Your task to perform on an android device: choose inbox layout in the gmail app Image 0: 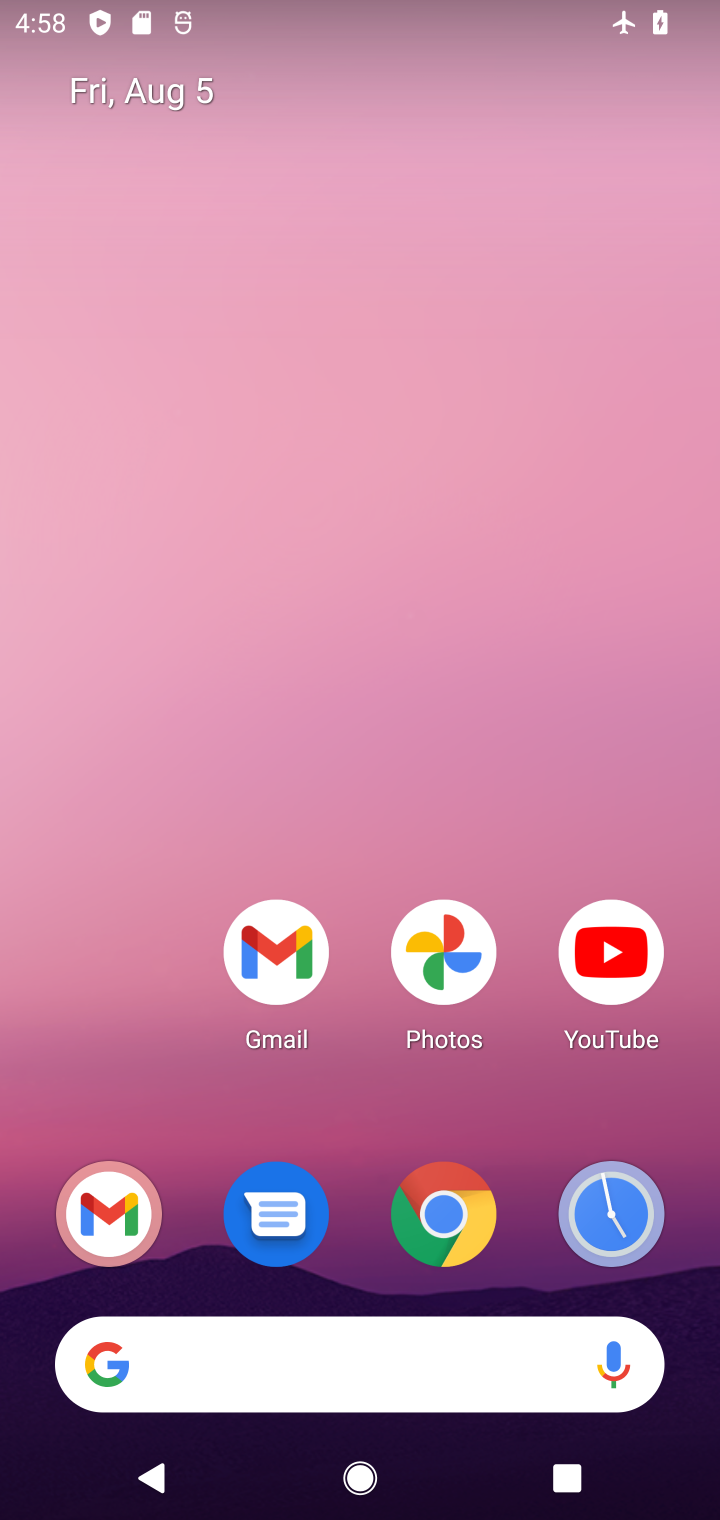
Step 0: click (295, 950)
Your task to perform on an android device: choose inbox layout in the gmail app Image 1: 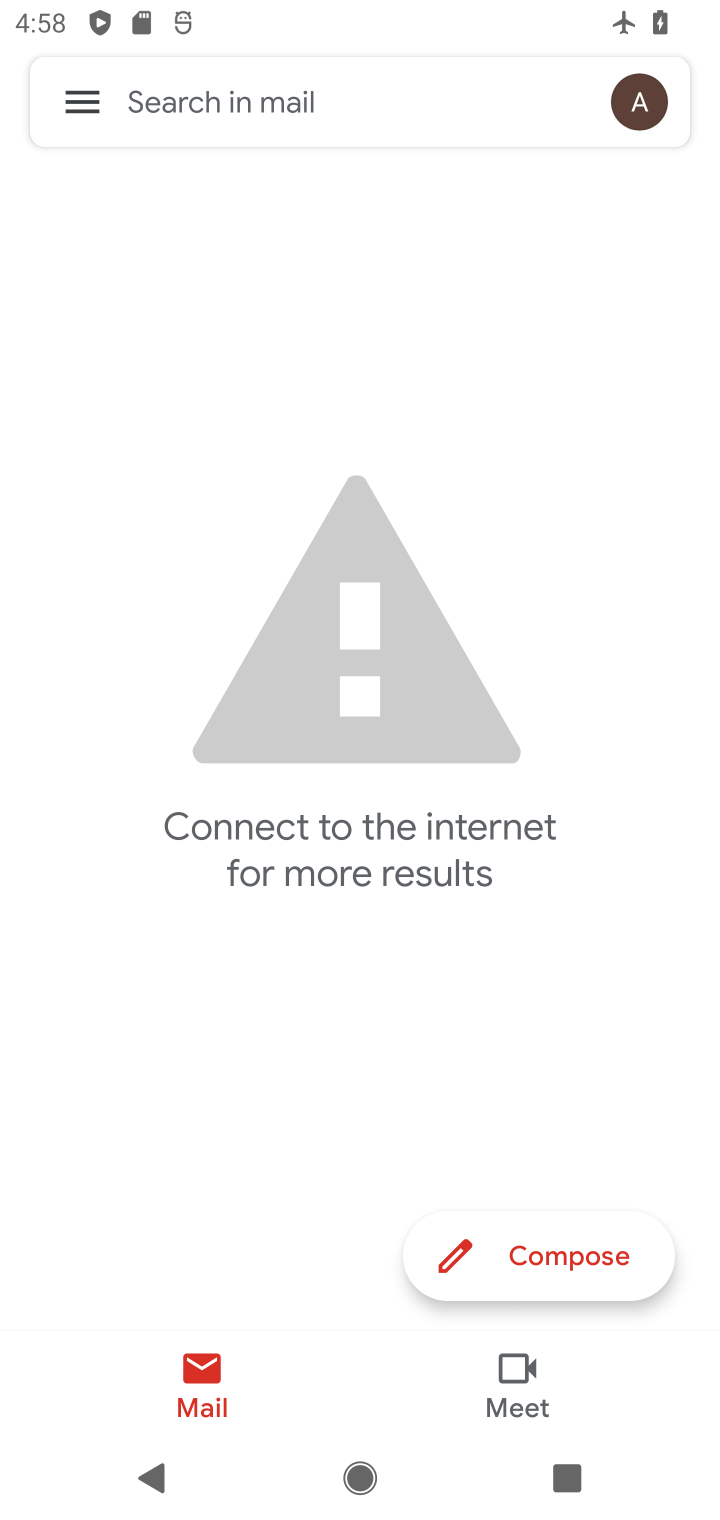
Step 1: click (75, 100)
Your task to perform on an android device: choose inbox layout in the gmail app Image 2: 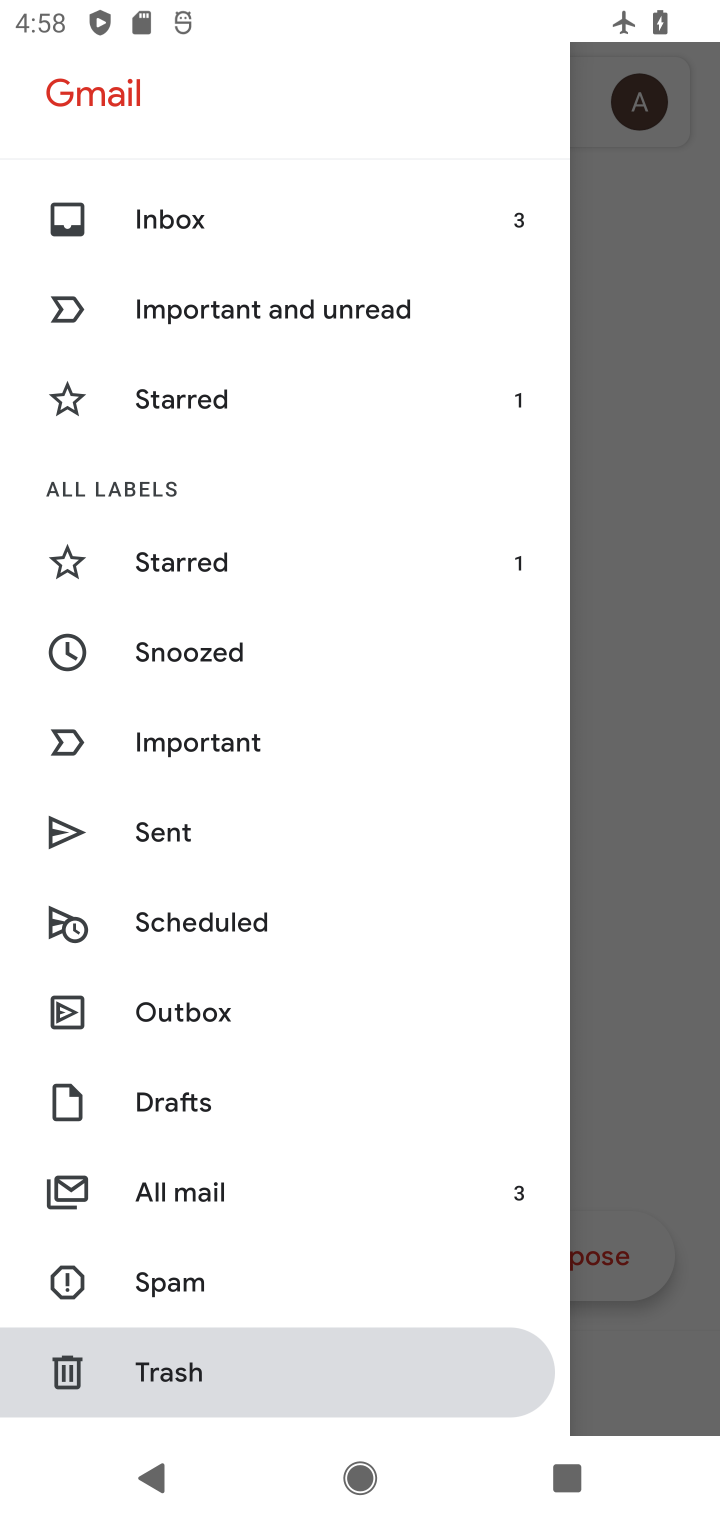
Step 2: drag from (278, 1151) to (475, 195)
Your task to perform on an android device: choose inbox layout in the gmail app Image 3: 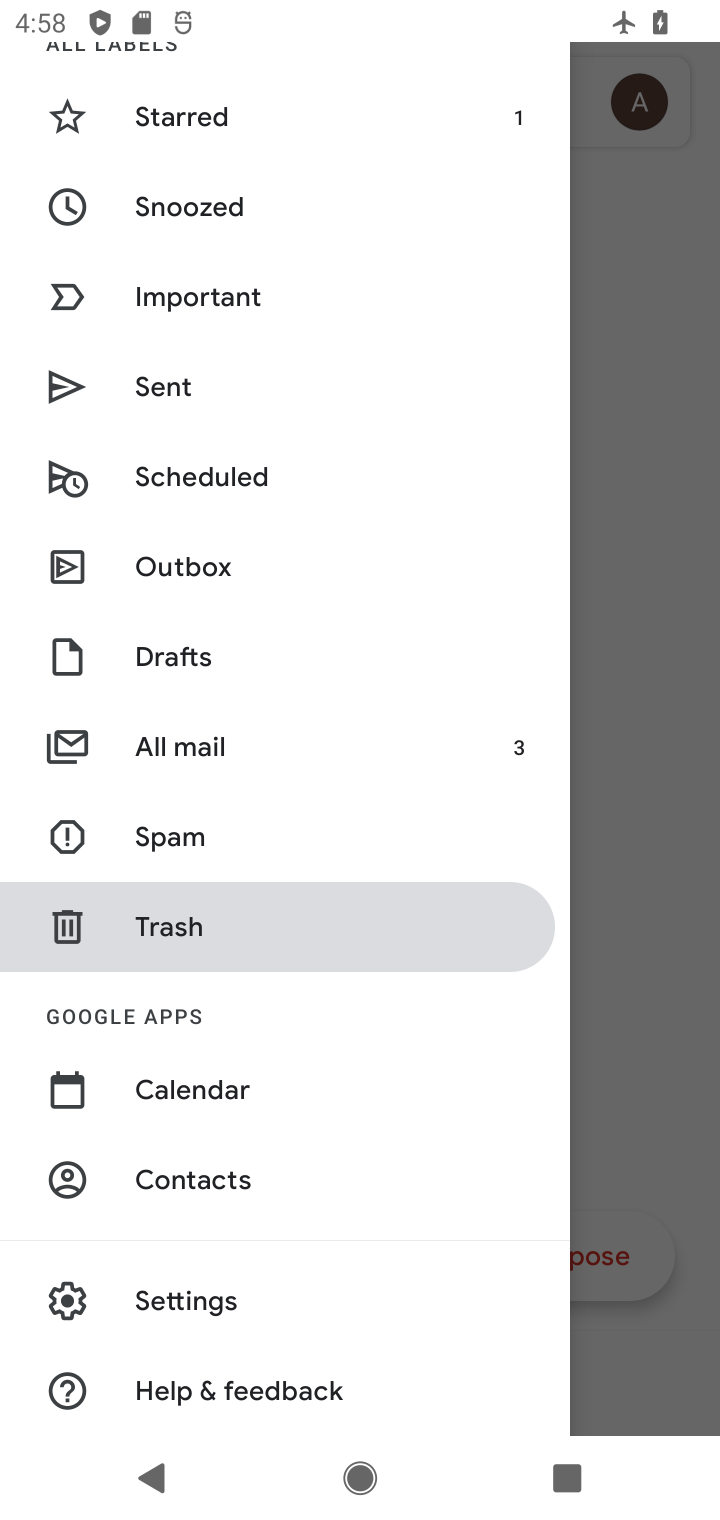
Step 3: click (190, 1294)
Your task to perform on an android device: choose inbox layout in the gmail app Image 4: 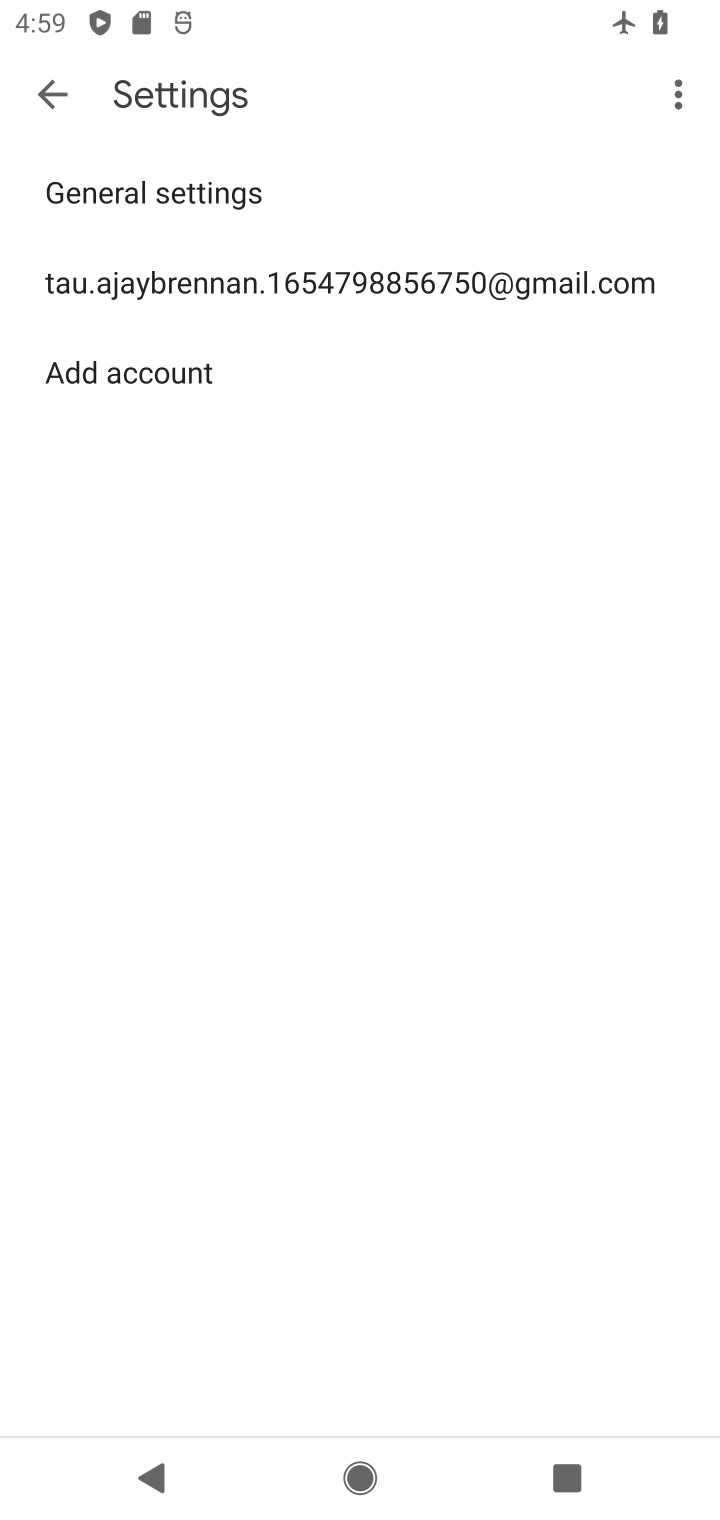
Step 4: click (389, 274)
Your task to perform on an android device: choose inbox layout in the gmail app Image 5: 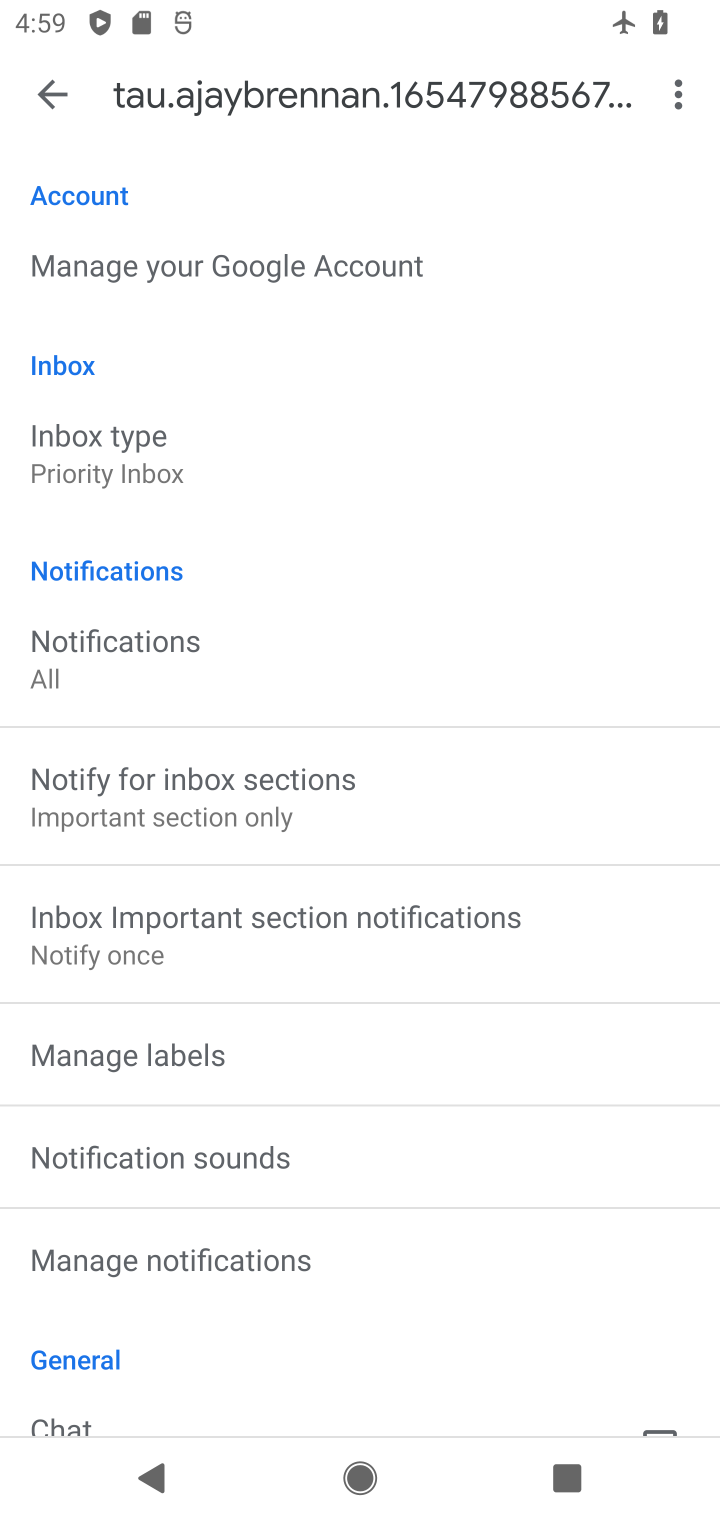
Step 5: click (158, 448)
Your task to perform on an android device: choose inbox layout in the gmail app Image 6: 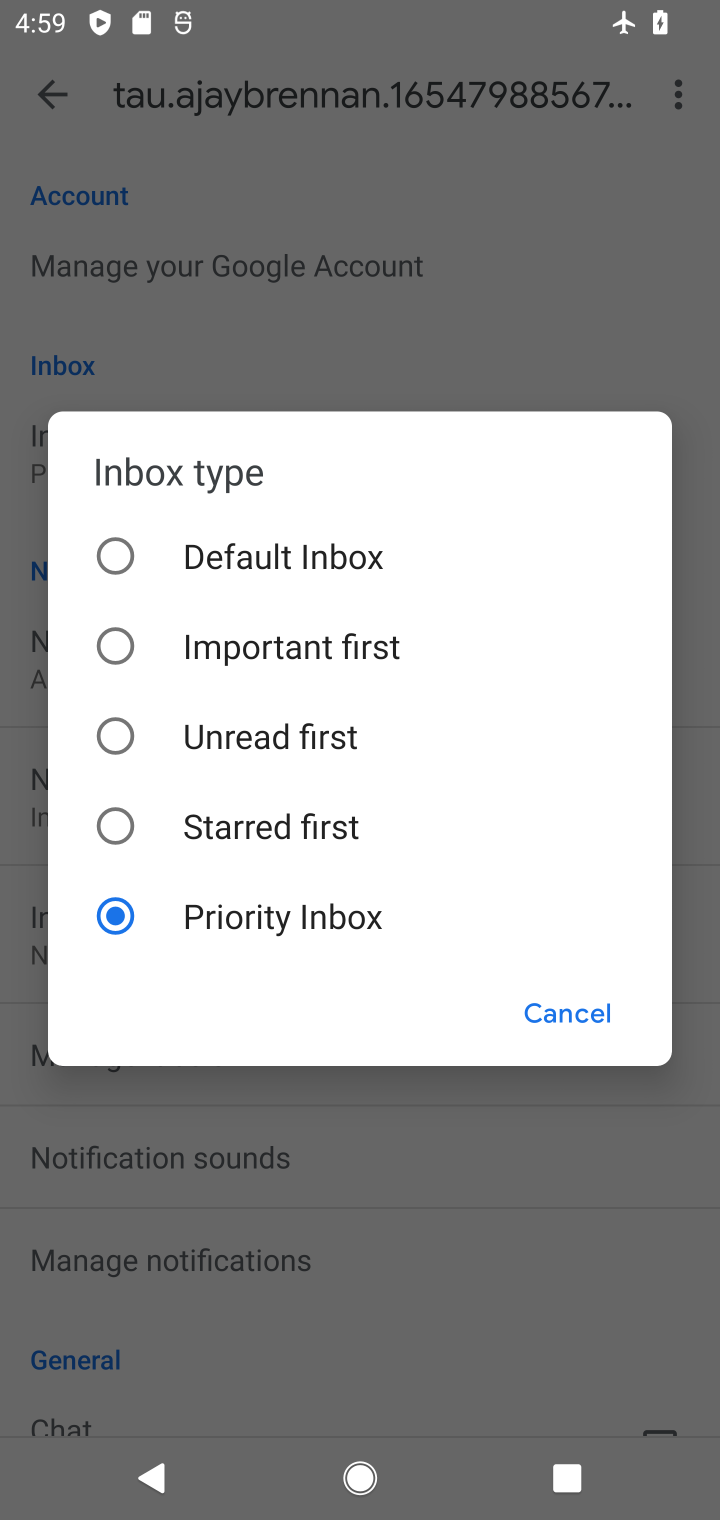
Step 6: click (105, 542)
Your task to perform on an android device: choose inbox layout in the gmail app Image 7: 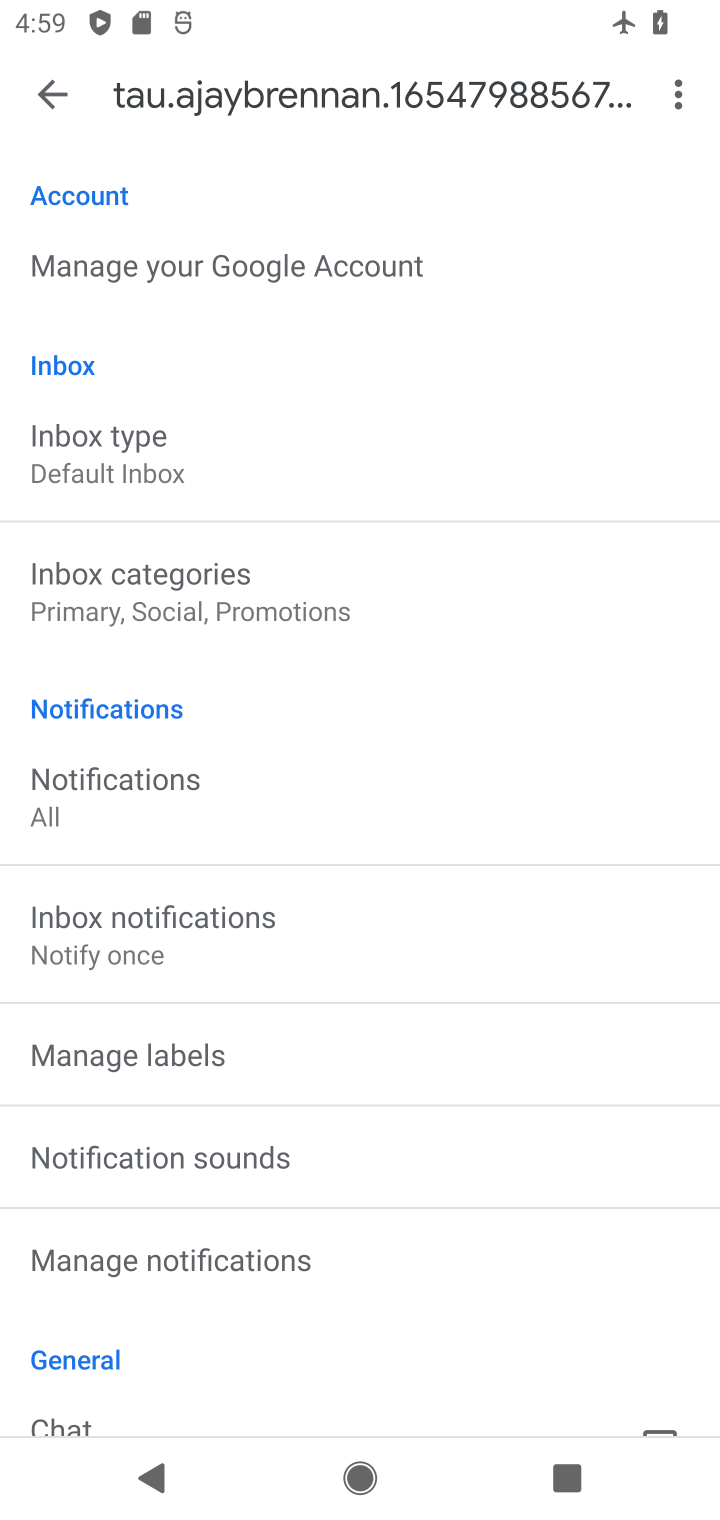
Step 7: task complete